Your task to perform on an android device: turn vacation reply on in the gmail app Image 0: 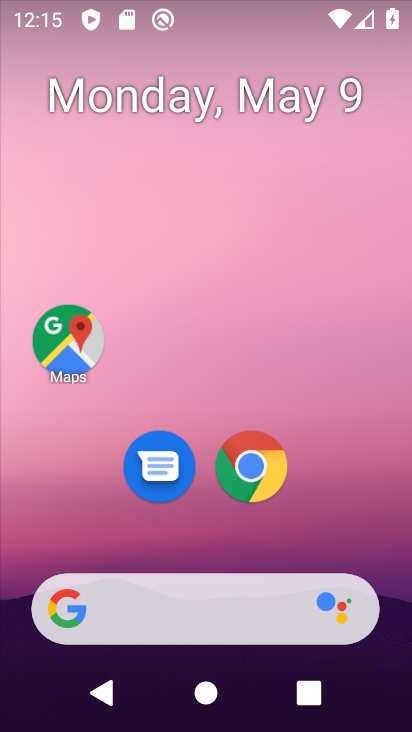
Step 0: drag from (401, 569) to (355, 128)
Your task to perform on an android device: turn vacation reply on in the gmail app Image 1: 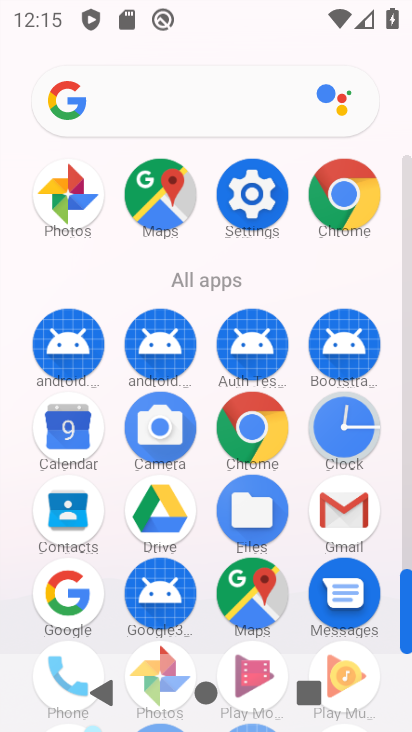
Step 1: click (346, 517)
Your task to perform on an android device: turn vacation reply on in the gmail app Image 2: 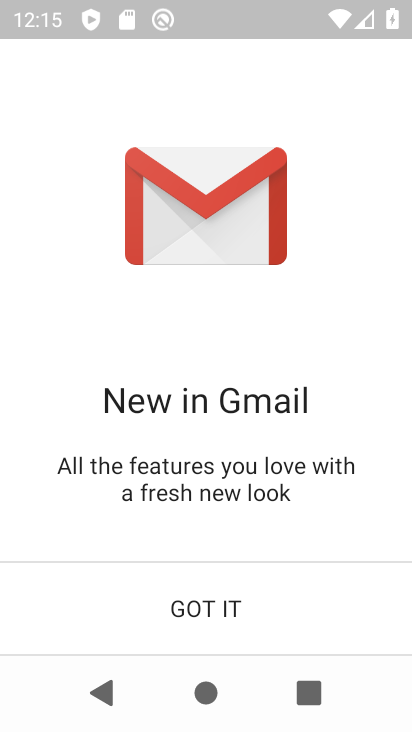
Step 2: click (218, 602)
Your task to perform on an android device: turn vacation reply on in the gmail app Image 3: 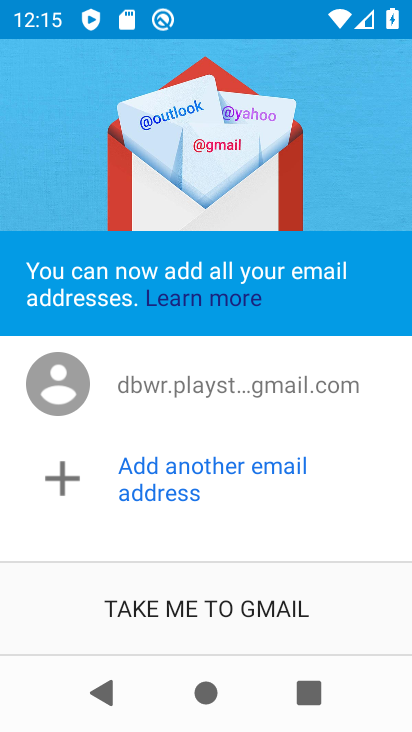
Step 3: click (218, 602)
Your task to perform on an android device: turn vacation reply on in the gmail app Image 4: 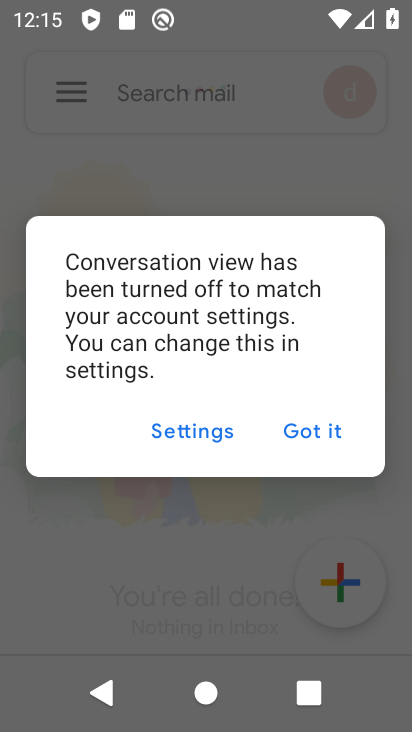
Step 4: click (296, 430)
Your task to perform on an android device: turn vacation reply on in the gmail app Image 5: 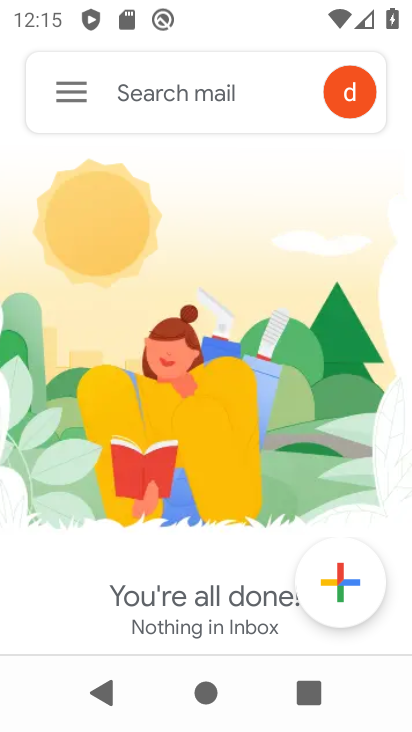
Step 5: click (69, 96)
Your task to perform on an android device: turn vacation reply on in the gmail app Image 6: 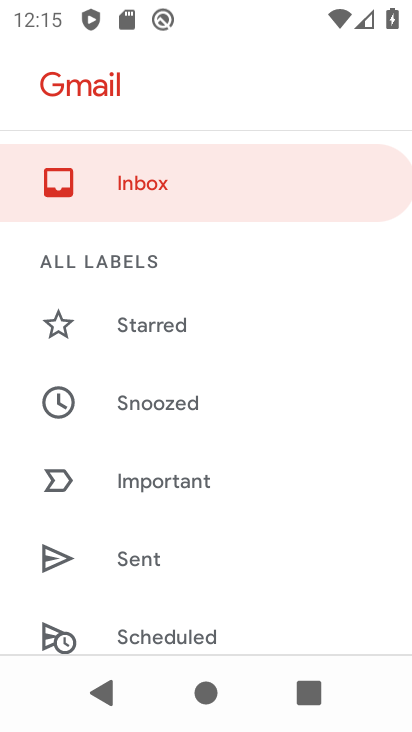
Step 6: drag from (289, 598) to (221, 73)
Your task to perform on an android device: turn vacation reply on in the gmail app Image 7: 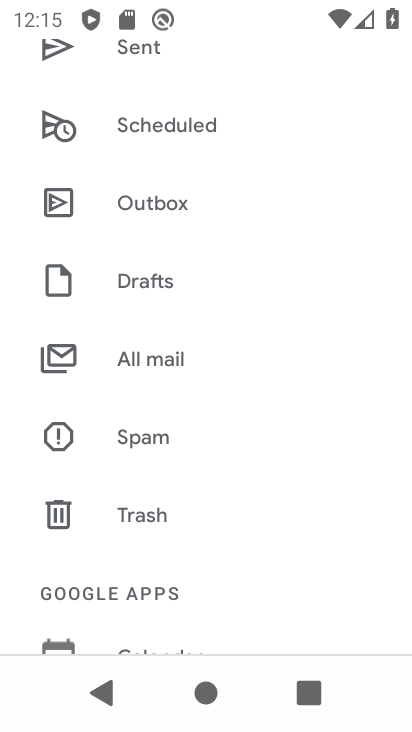
Step 7: drag from (292, 163) to (270, 113)
Your task to perform on an android device: turn vacation reply on in the gmail app Image 8: 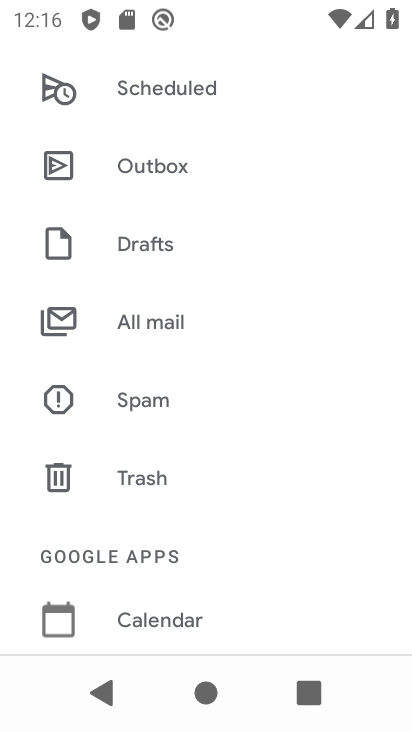
Step 8: drag from (226, 565) to (251, 74)
Your task to perform on an android device: turn vacation reply on in the gmail app Image 9: 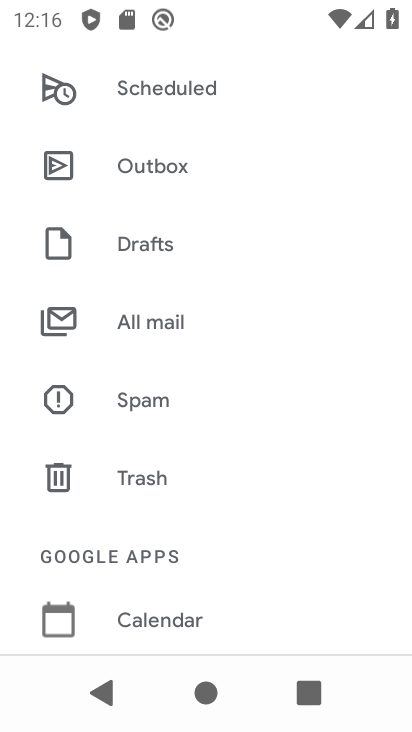
Step 9: drag from (244, 537) to (250, 52)
Your task to perform on an android device: turn vacation reply on in the gmail app Image 10: 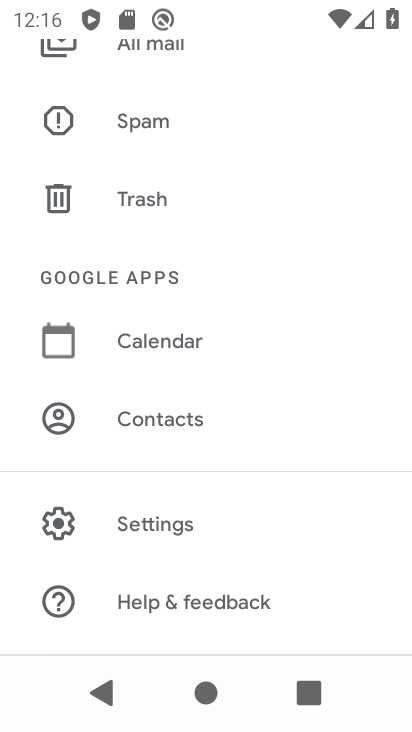
Step 10: click (205, 532)
Your task to perform on an android device: turn vacation reply on in the gmail app Image 11: 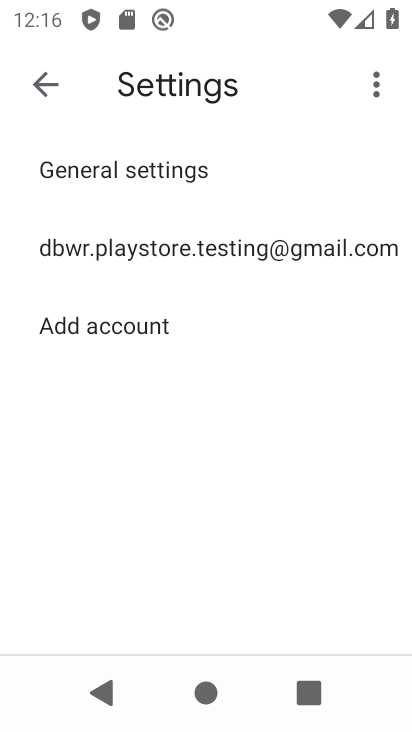
Step 11: click (223, 260)
Your task to perform on an android device: turn vacation reply on in the gmail app Image 12: 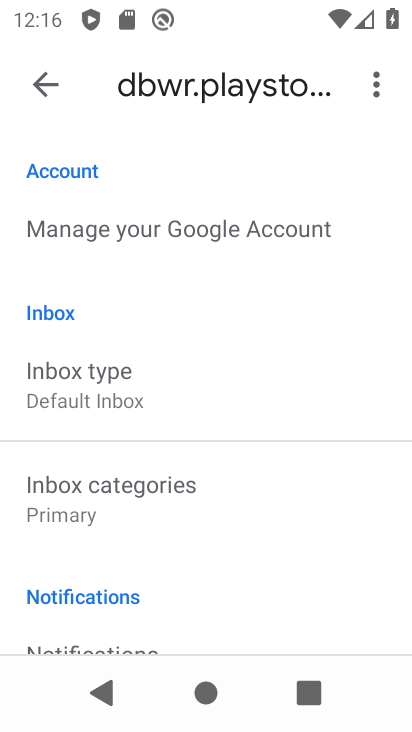
Step 12: drag from (234, 638) to (232, 229)
Your task to perform on an android device: turn vacation reply on in the gmail app Image 13: 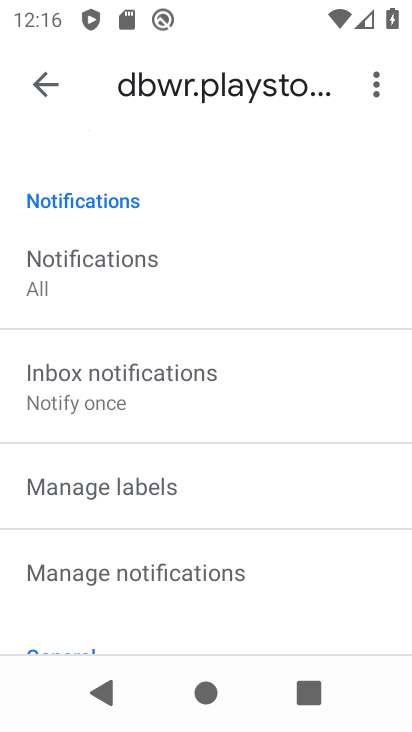
Step 13: drag from (261, 605) to (214, 128)
Your task to perform on an android device: turn vacation reply on in the gmail app Image 14: 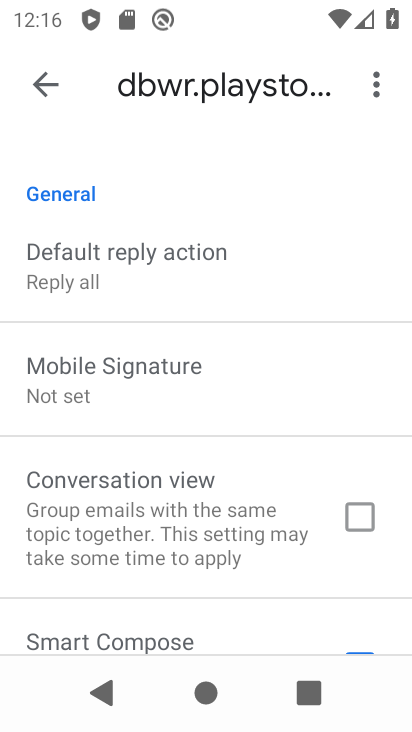
Step 14: drag from (196, 508) to (231, 122)
Your task to perform on an android device: turn vacation reply on in the gmail app Image 15: 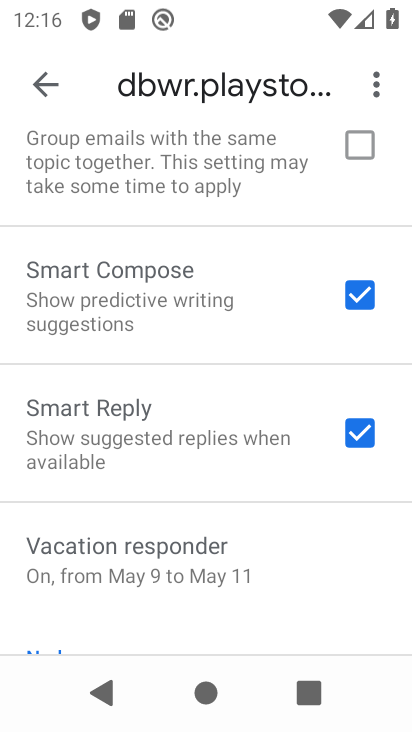
Step 15: click (209, 568)
Your task to perform on an android device: turn vacation reply on in the gmail app Image 16: 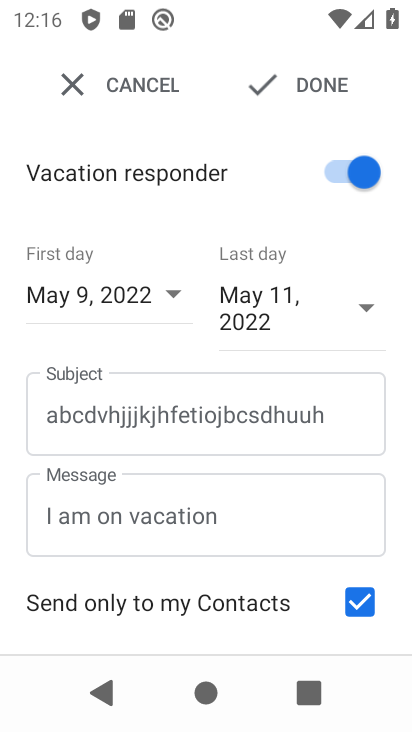
Step 16: click (299, 314)
Your task to perform on an android device: turn vacation reply on in the gmail app Image 17: 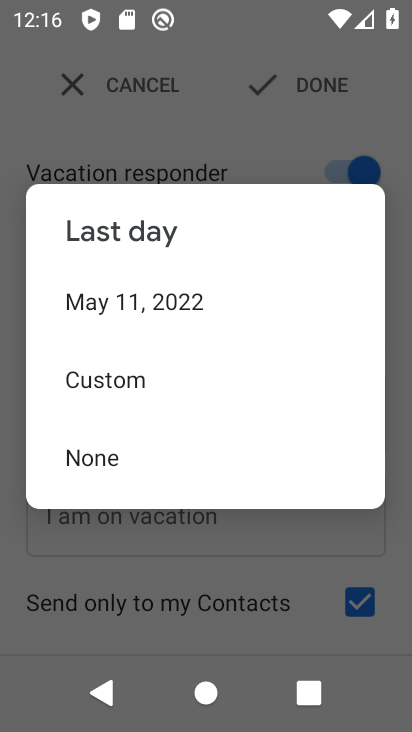
Step 17: click (172, 357)
Your task to perform on an android device: turn vacation reply on in the gmail app Image 18: 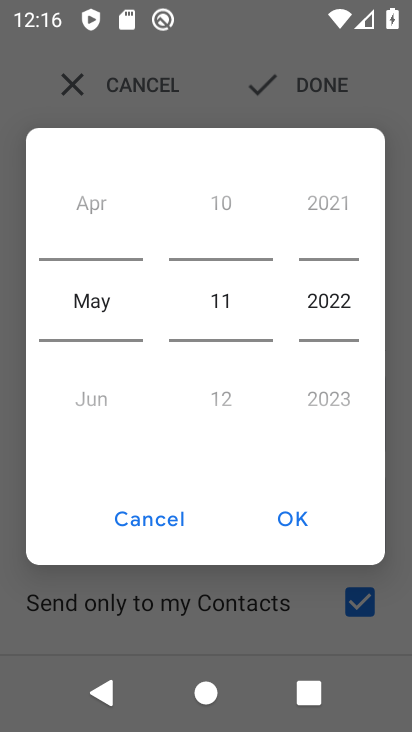
Step 18: drag from (327, 413) to (309, 294)
Your task to perform on an android device: turn vacation reply on in the gmail app Image 19: 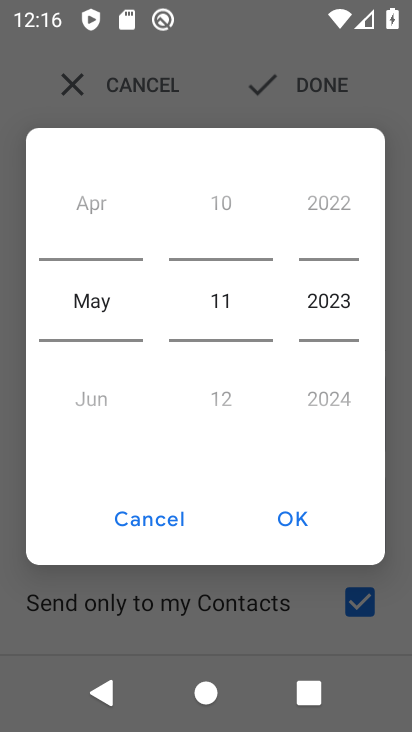
Step 19: click (303, 525)
Your task to perform on an android device: turn vacation reply on in the gmail app Image 20: 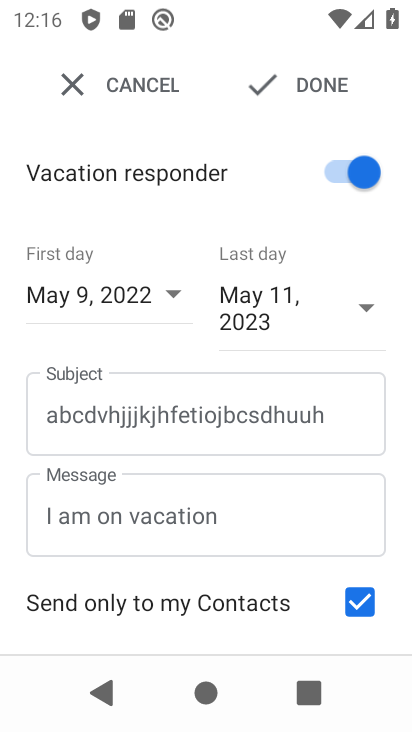
Step 20: click (320, 94)
Your task to perform on an android device: turn vacation reply on in the gmail app Image 21: 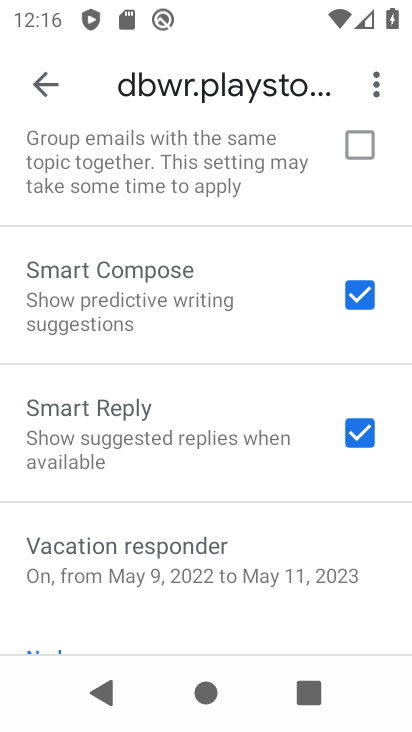
Step 21: task complete